Your task to perform on an android device: open chrome privacy settings Image 0: 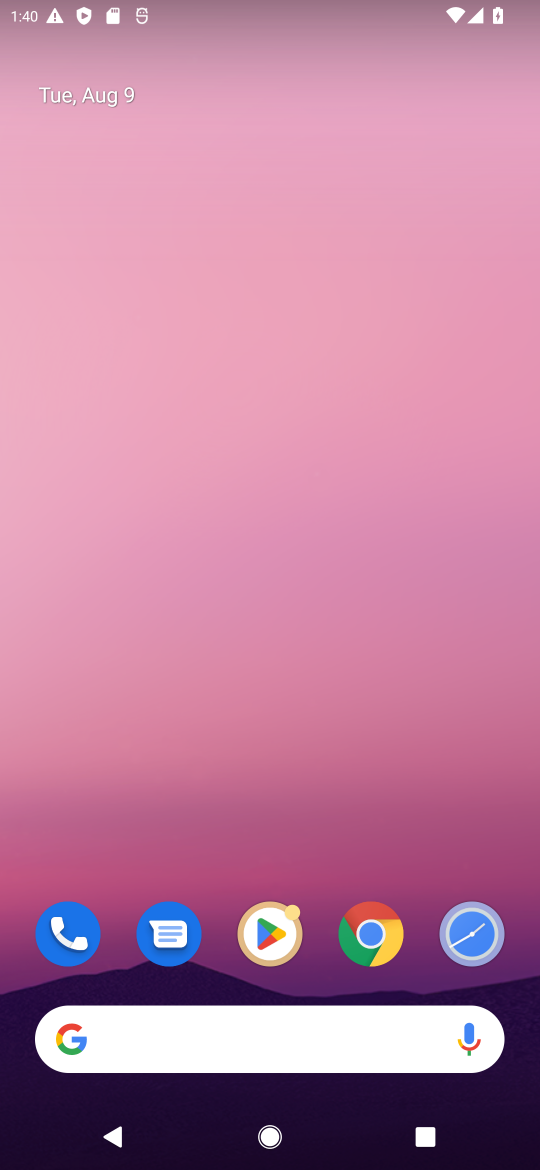
Step 0: click (383, 915)
Your task to perform on an android device: open chrome privacy settings Image 1: 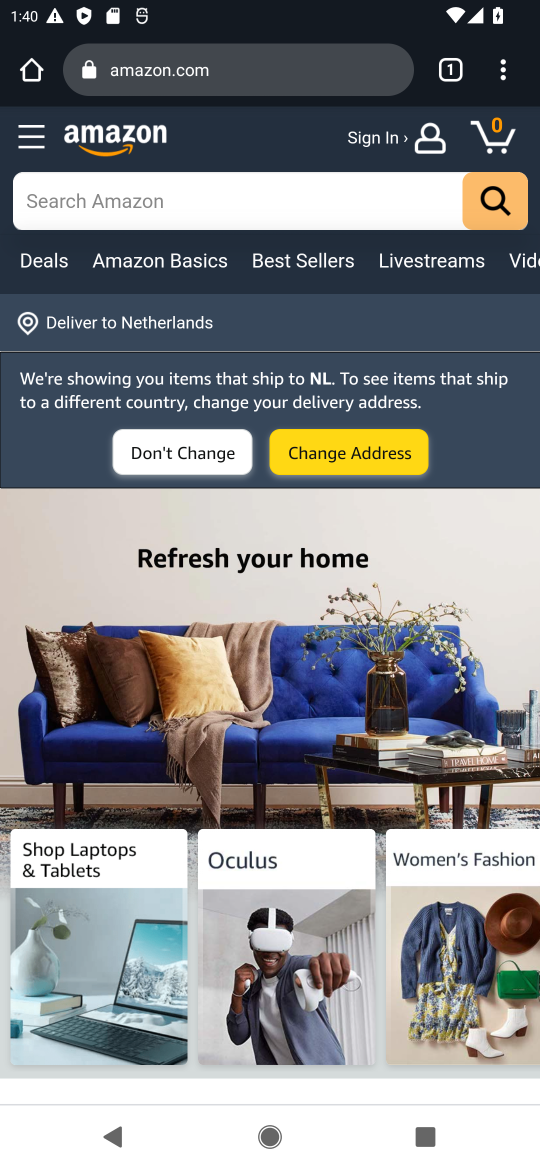
Step 1: click (500, 89)
Your task to perform on an android device: open chrome privacy settings Image 2: 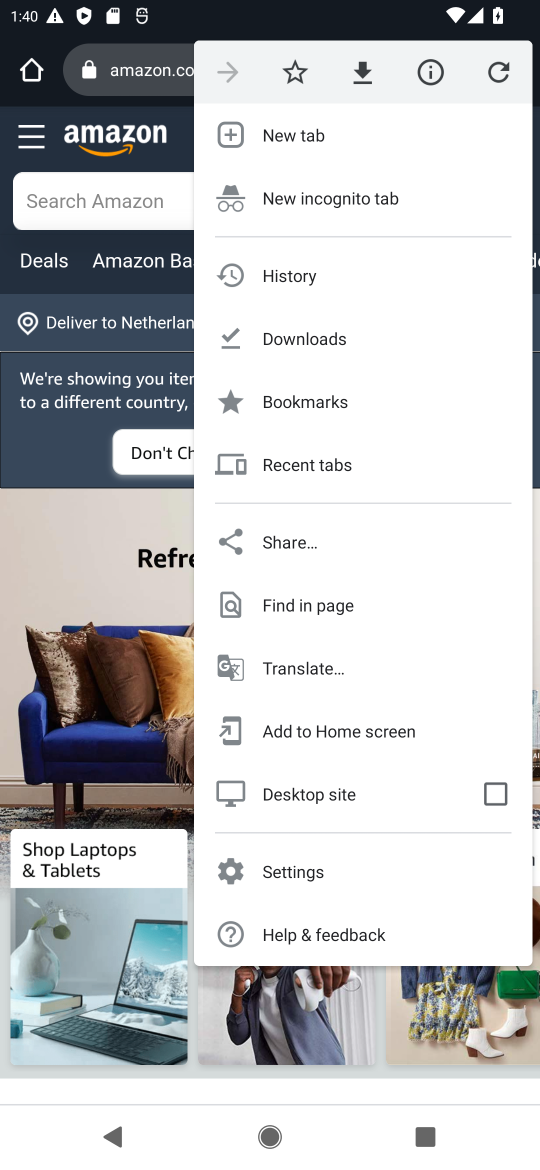
Step 2: click (287, 865)
Your task to perform on an android device: open chrome privacy settings Image 3: 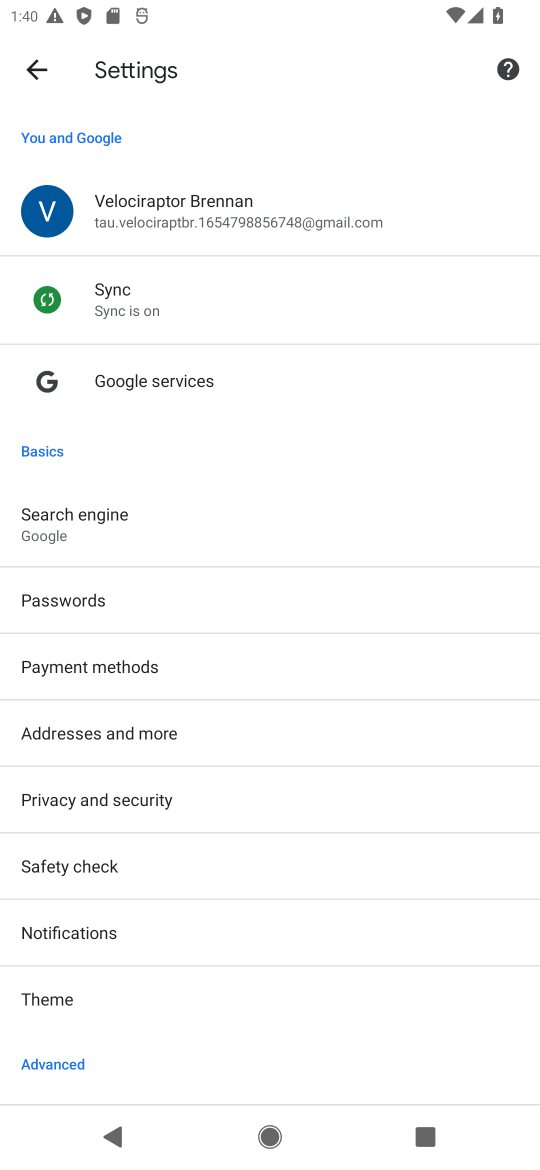
Step 3: click (232, 786)
Your task to perform on an android device: open chrome privacy settings Image 4: 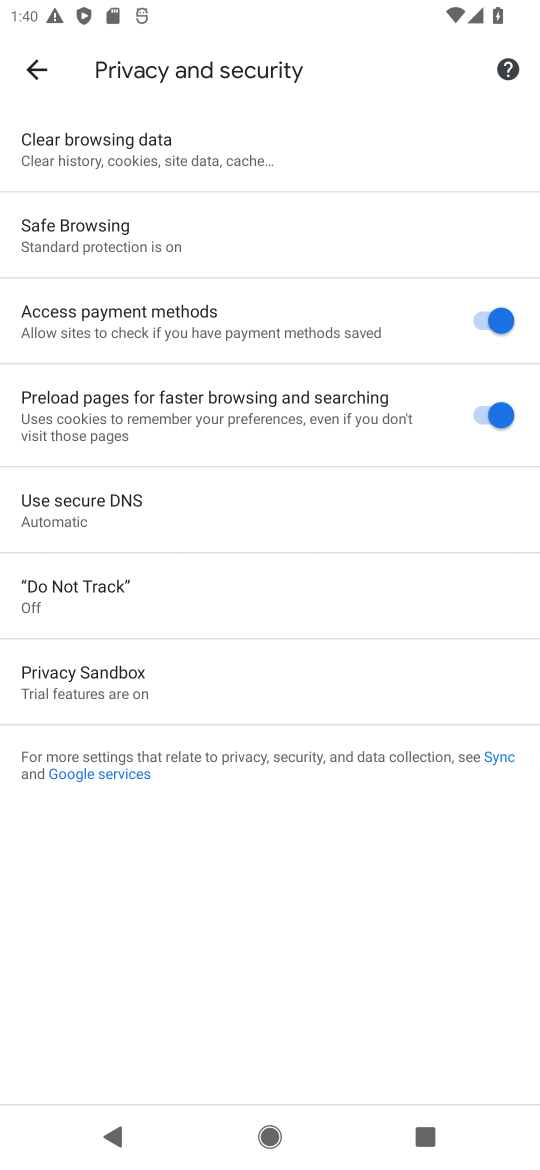
Step 4: task complete